Your task to perform on an android device: move a message to another label in the gmail app Image 0: 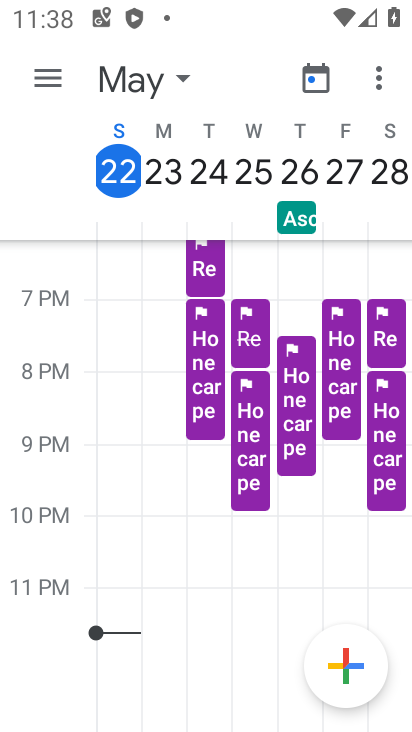
Step 0: press home button
Your task to perform on an android device: move a message to another label in the gmail app Image 1: 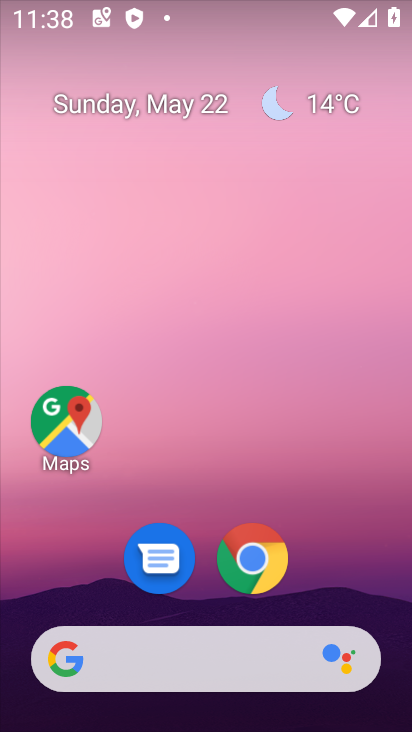
Step 1: drag from (361, 618) to (392, 10)
Your task to perform on an android device: move a message to another label in the gmail app Image 2: 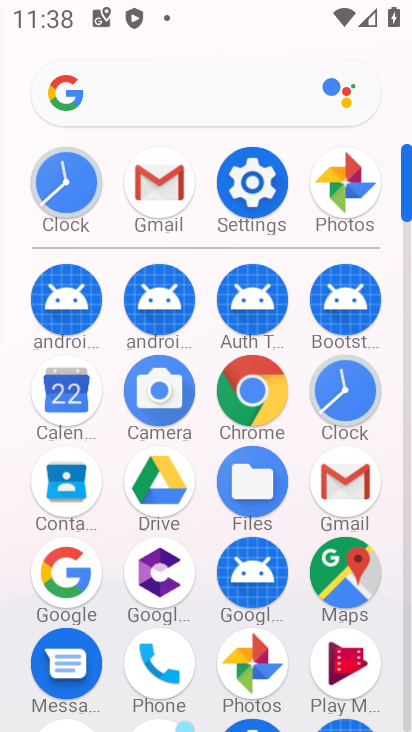
Step 2: click (162, 198)
Your task to perform on an android device: move a message to another label in the gmail app Image 3: 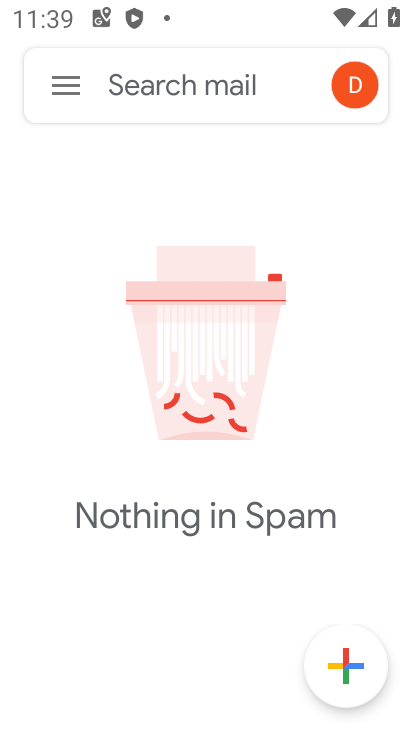
Step 3: click (58, 91)
Your task to perform on an android device: move a message to another label in the gmail app Image 4: 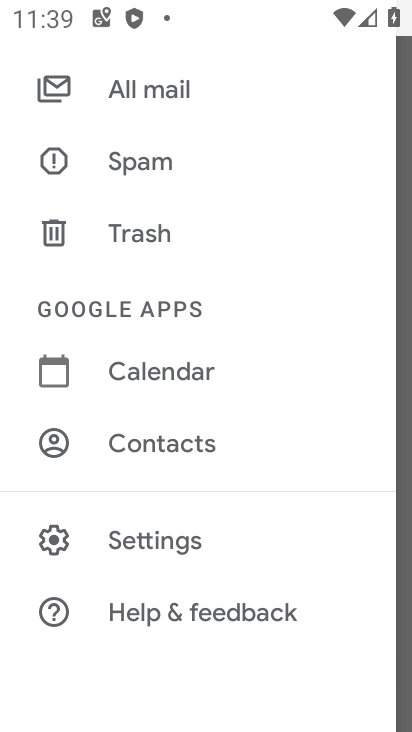
Step 4: click (141, 95)
Your task to perform on an android device: move a message to another label in the gmail app Image 5: 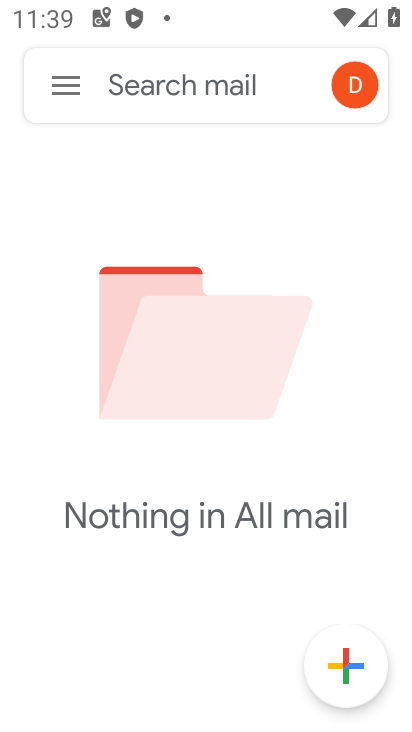
Step 5: task complete